Your task to perform on an android device: View the shopping cart on bestbuy. Search for "asus rog" on bestbuy, select the first entry, and add it to the cart. Image 0: 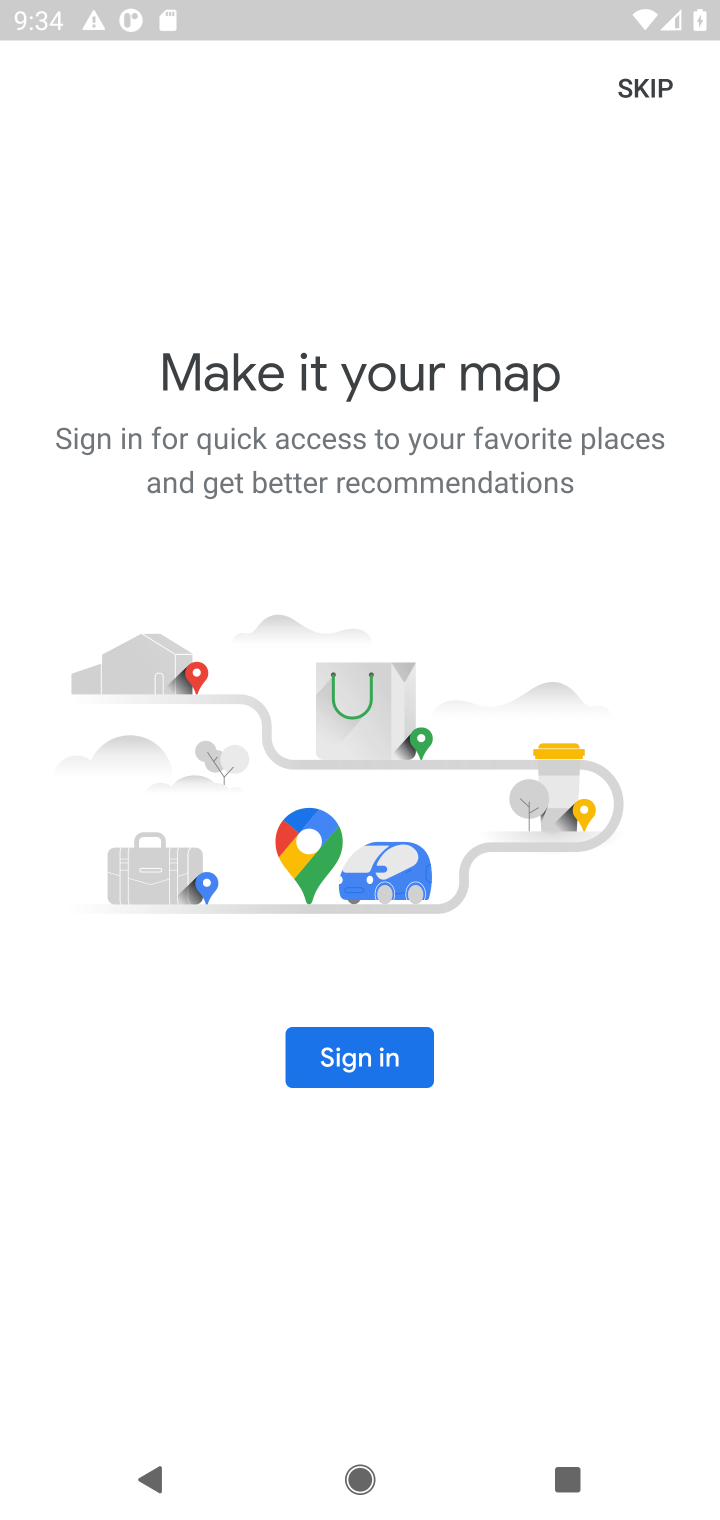
Step 0: press home button
Your task to perform on an android device: View the shopping cart on bestbuy. Search for "asus rog" on bestbuy, select the first entry, and add it to the cart. Image 1: 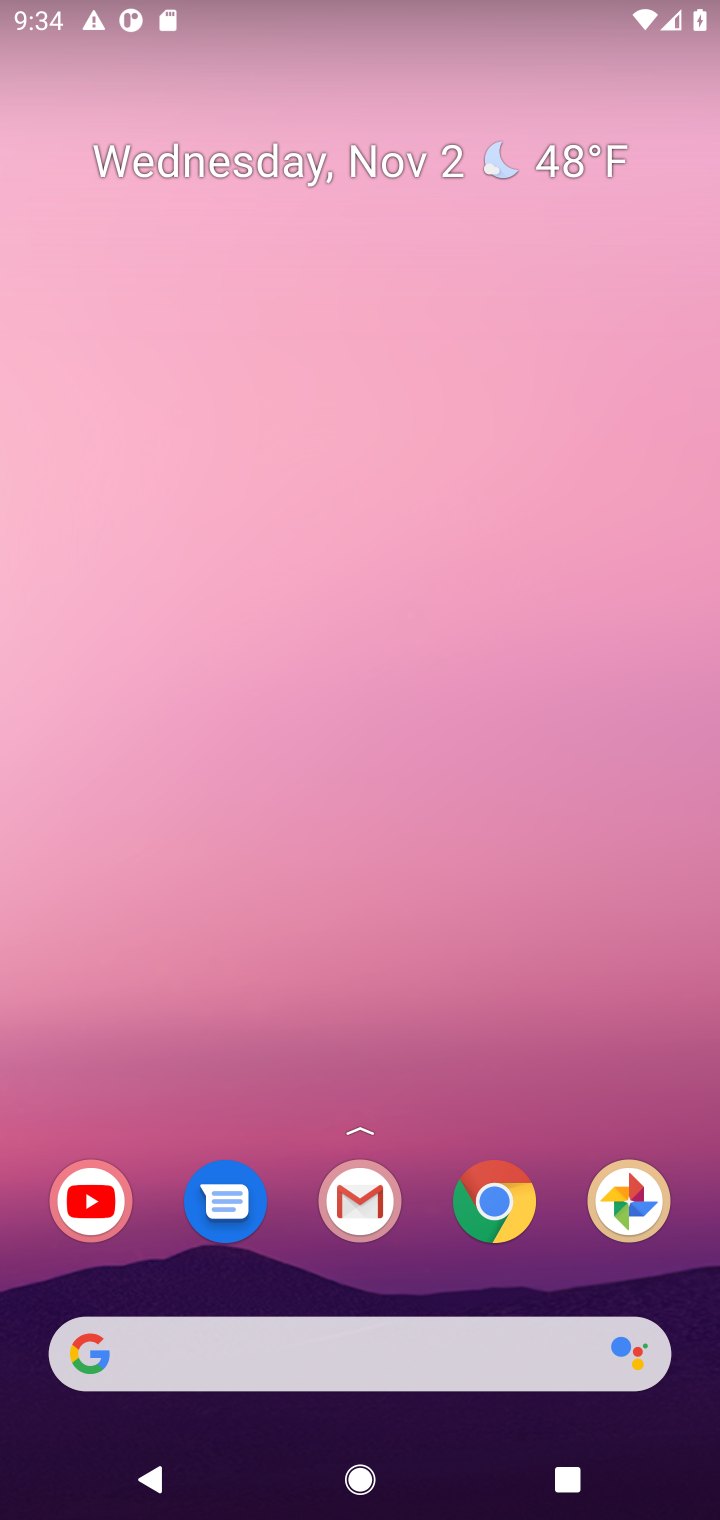
Step 1: drag from (416, 1279) to (359, 327)
Your task to perform on an android device: View the shopping cart on bestbuy. Search for "asus rog" on bestbuy, select the first entry, and add it to the cart. Image 2: 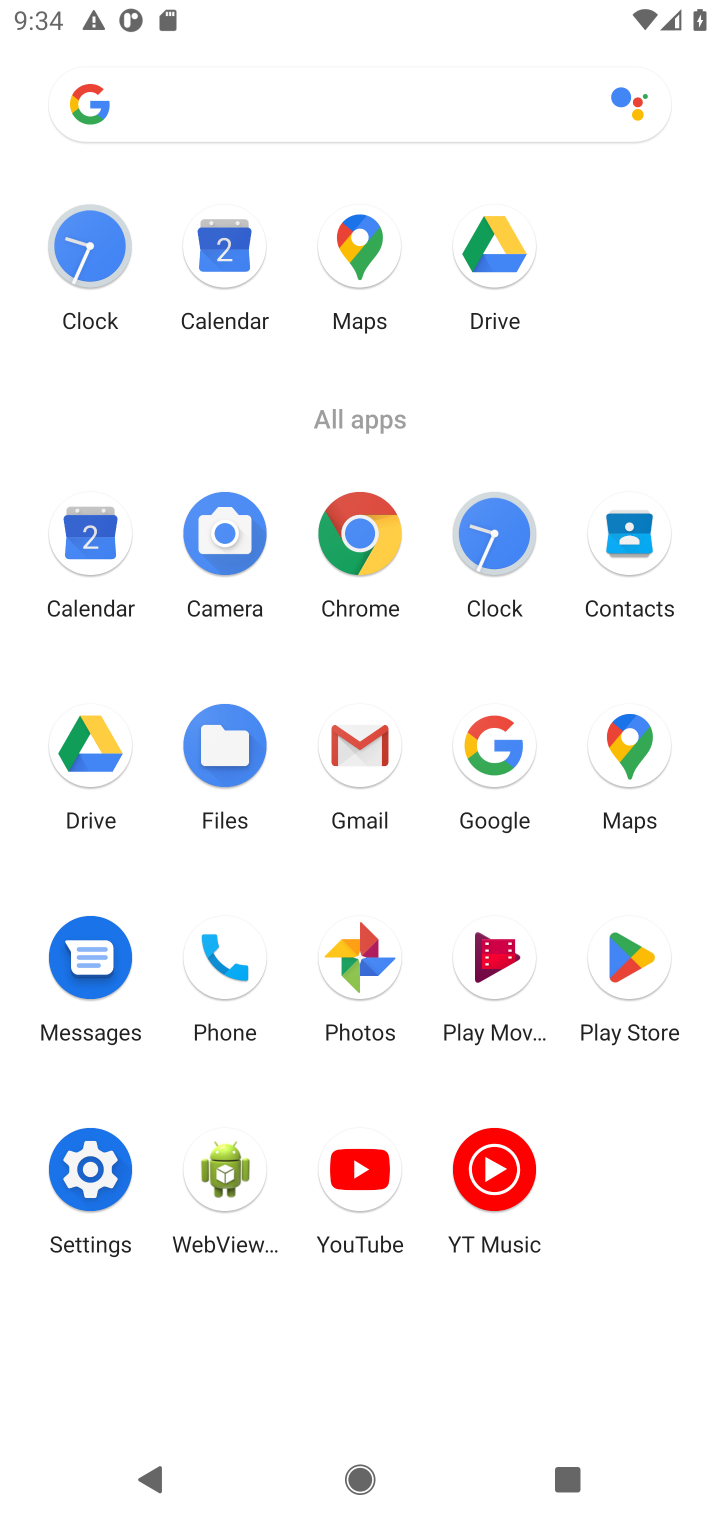
Step 2: click (363, 532)
Your task to perform on an android device: View the shopping cart on bestbuy. Search for "asus rog" on bestbuy, select the first entry, and add it to the cart. Image 3: 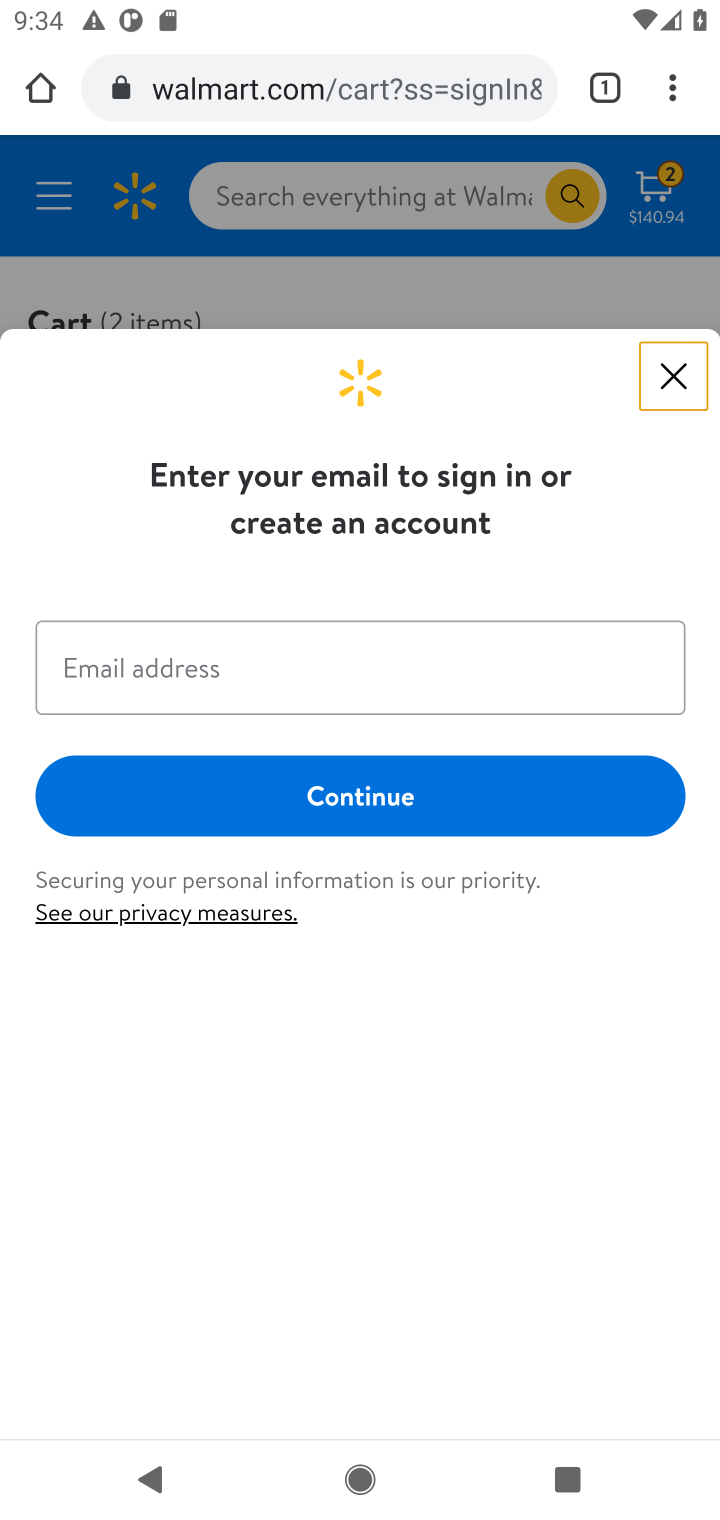
Step 3: click (394, 106)
Your task to perform on an android device: View the shopping cart on bestbuy. Search for "asus rog" on bestbuy, select the first entry, and add it to the cart. Image 4: 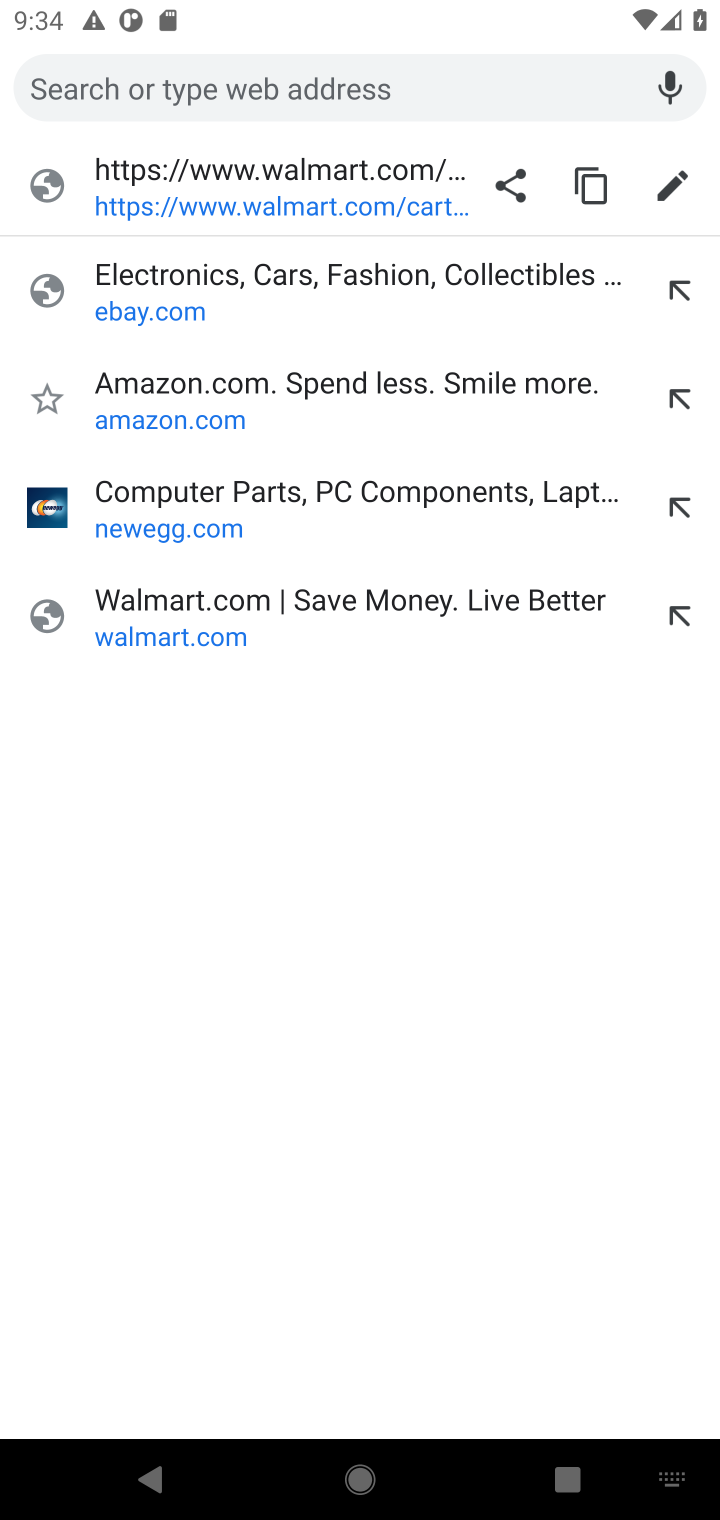
Step 4: type "bestbuy.com"
Your task to perform on an android device: View the shopping cart on bestbuy. Search for "asus rog" on bestbuy, select the first entry, and add it to the cart. Image 5: 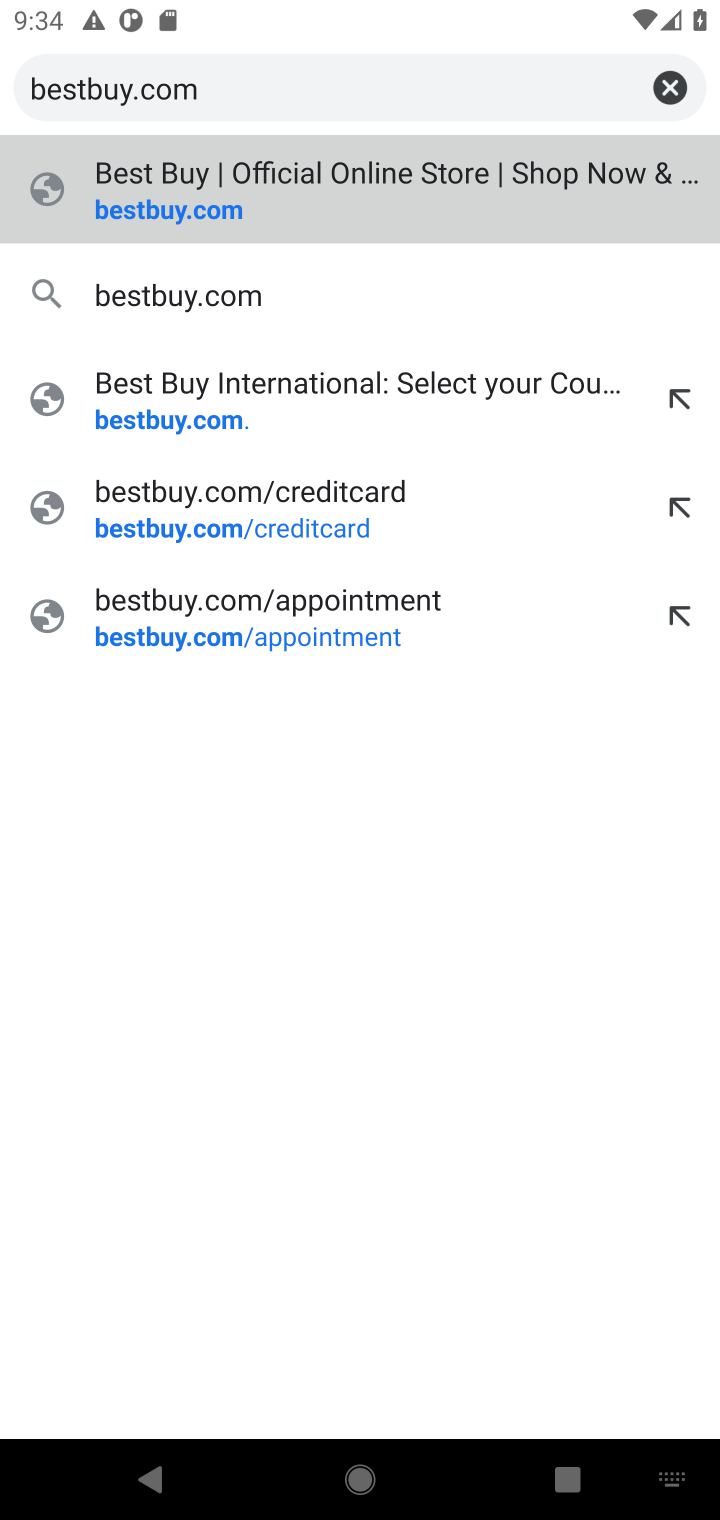
Step 5: press enter
Your task to perform on an android device: View the shopping cart on bestbuy. Search for "asus rog" on bestbuy, select the first entry, and add it to the cart. Image 6: 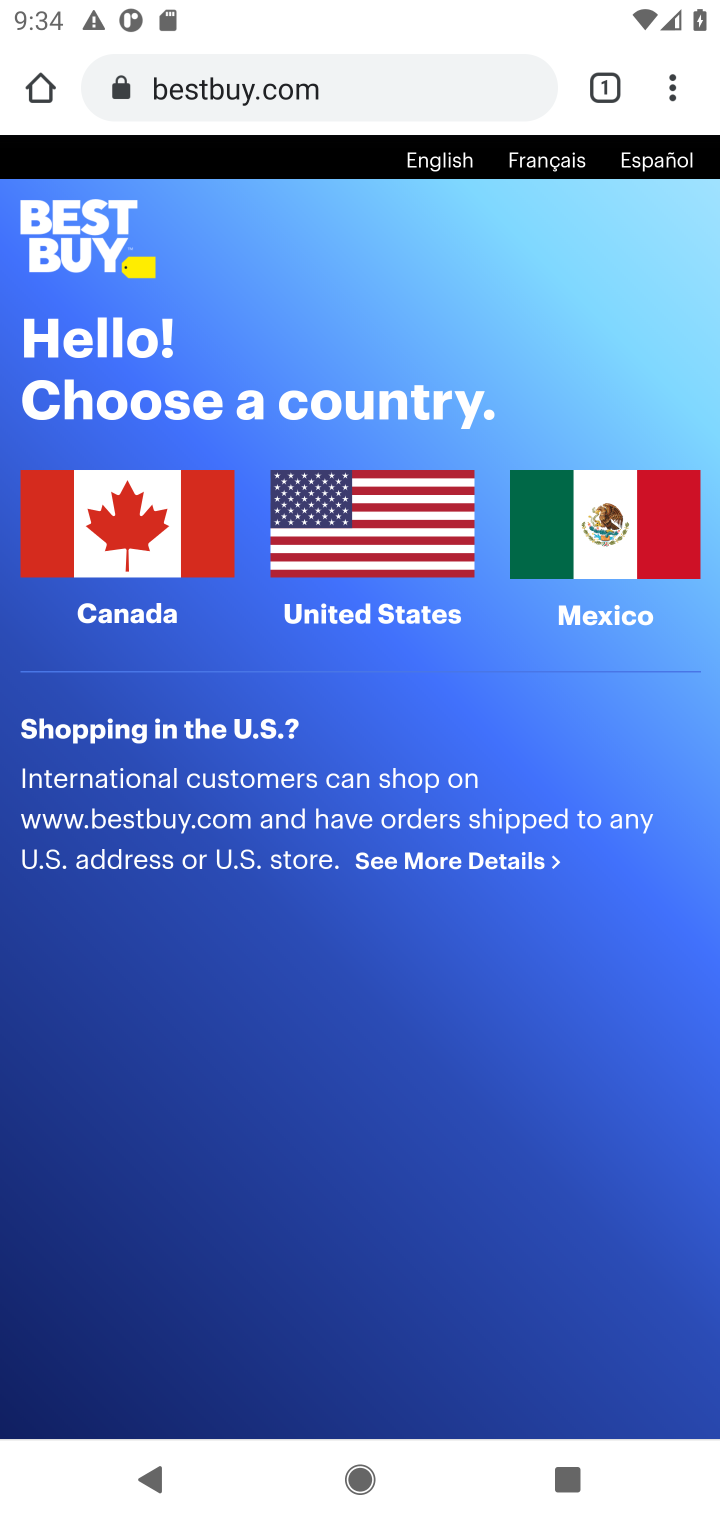
Step 6: click (118, 547)
Your task to perform on an android device: View the shopping cart on bestbuy. Search for "asus rog" on bestbuy, select the first entry, and add it to the cart. Image 7: 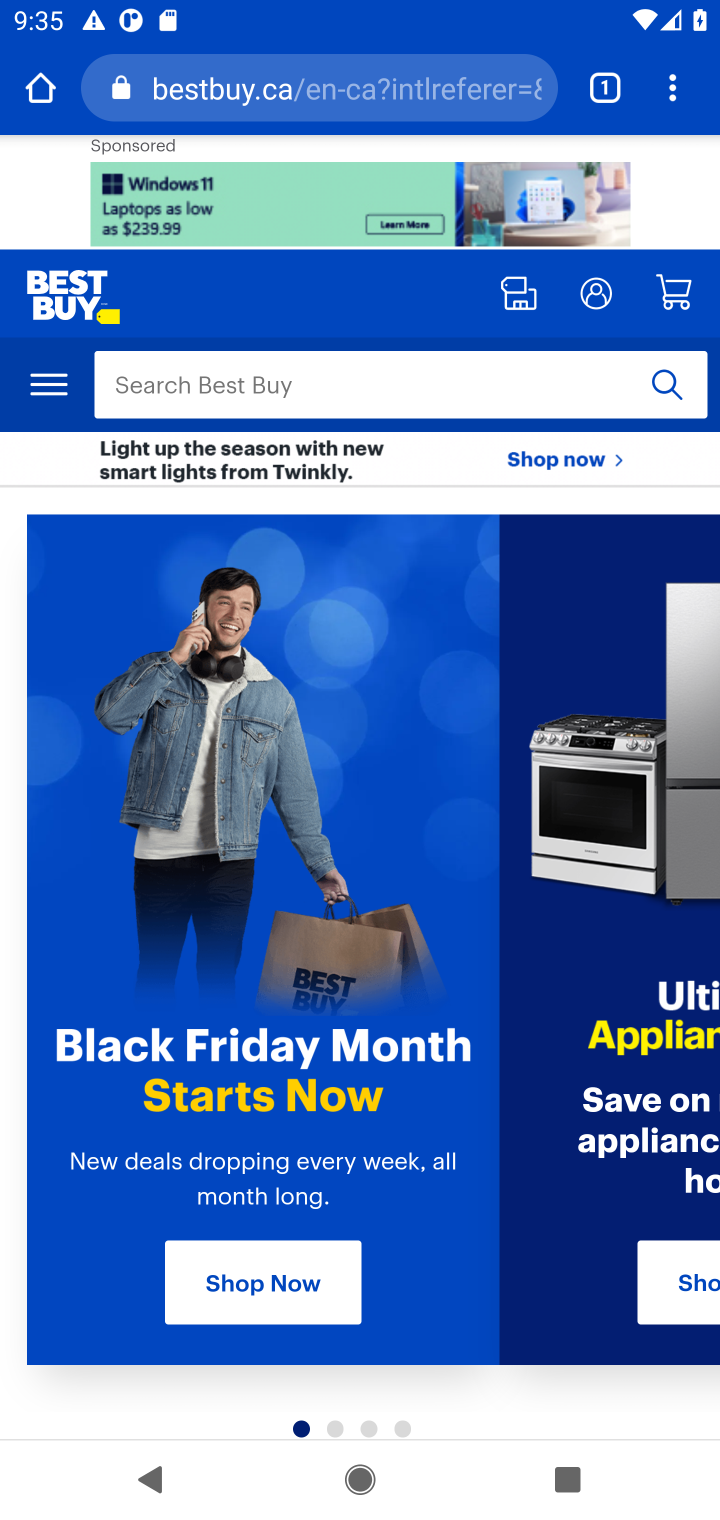
Step 7: click (674, 277)
Your task to perform on an android device: View the shopping cart on bestbuy. Search for "asus rog" on bestbuy, select the first entry, and add it to the cart. Image 8: 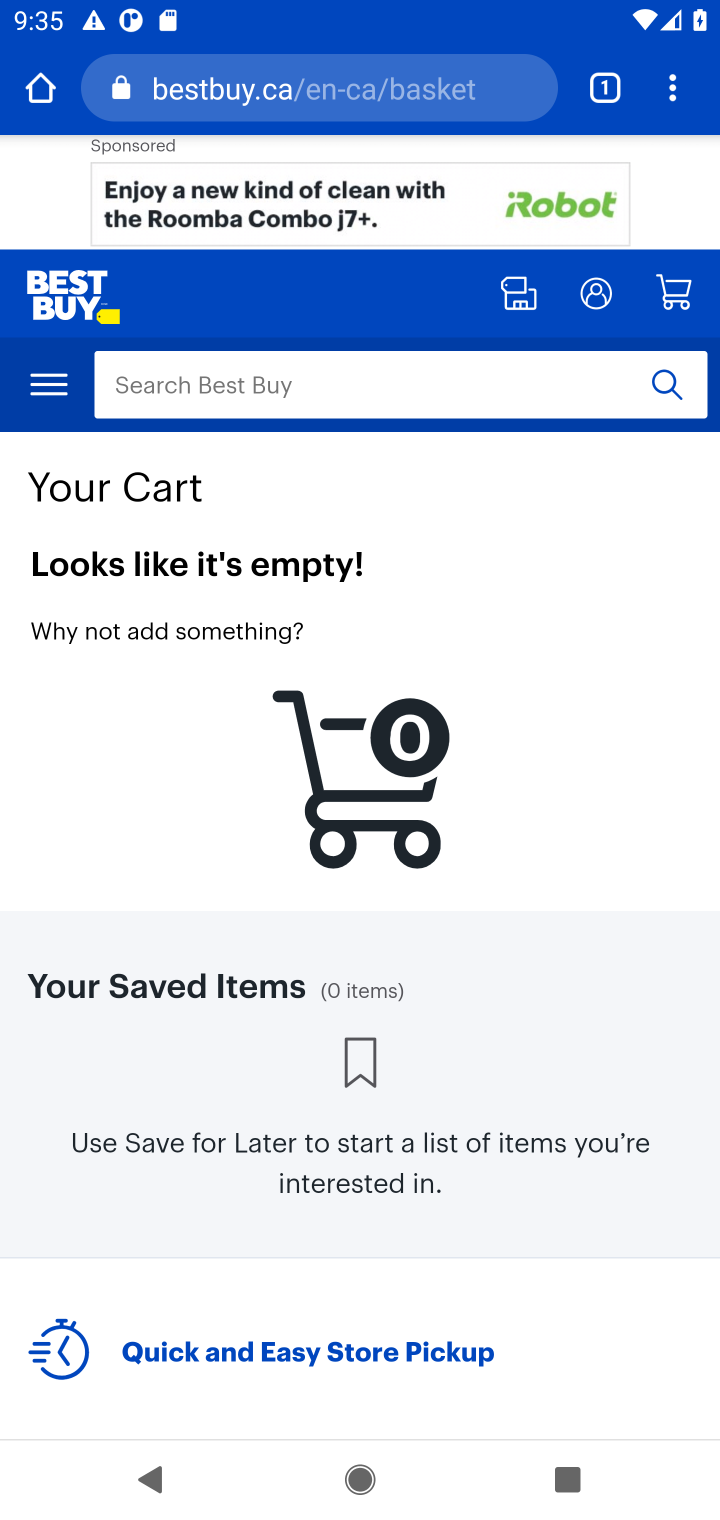
Step 8: click (413, 383)
Your task to perform on an android device: View the shopping cart on bestbuy. Search for "asus rog" on bestbuy, select the first entry, and add it to the cart. Image 9: 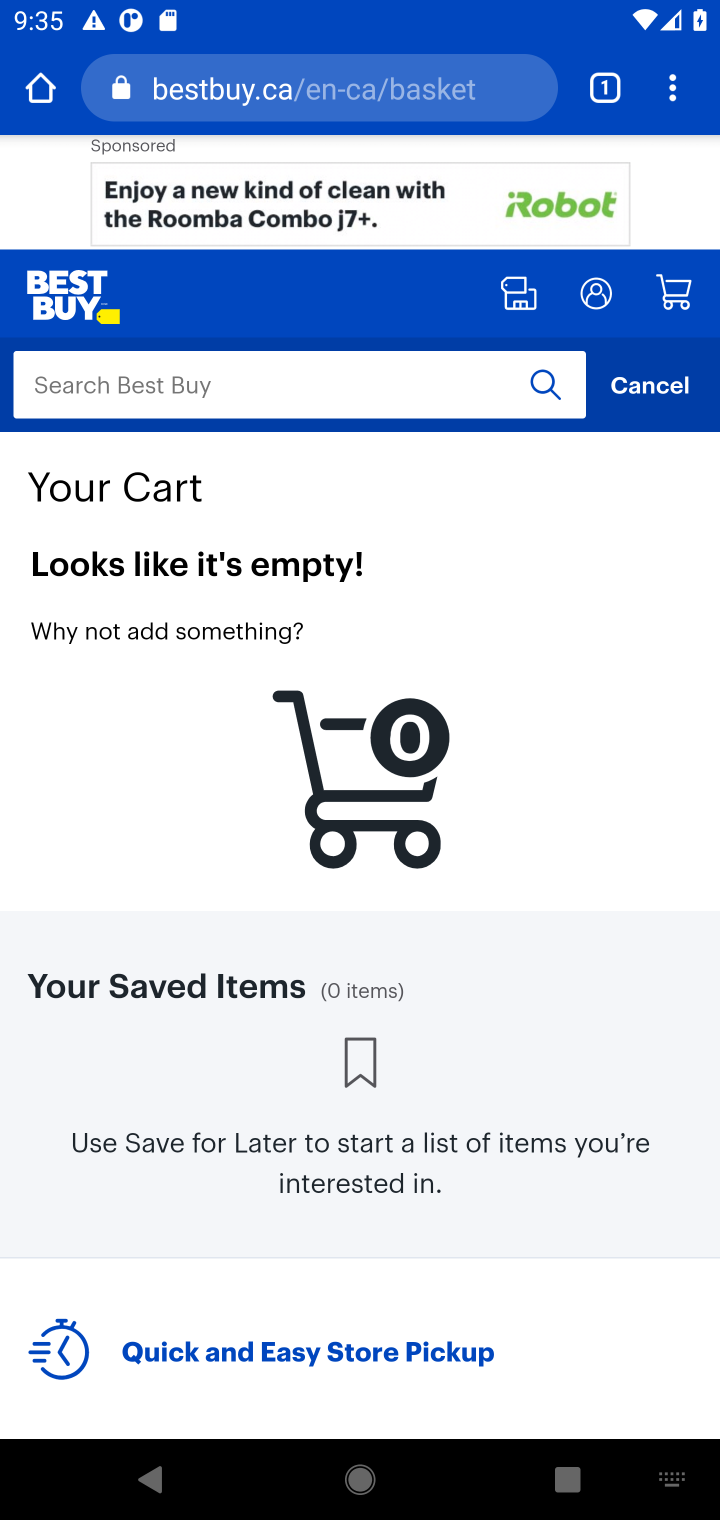
Step 9: type "asus rog"
Your task to perform on an android device: View the shopping cart on bestbuy. Search for "asus rog" on bestbuy, select the first entry, and add it to the cart. Image 10: 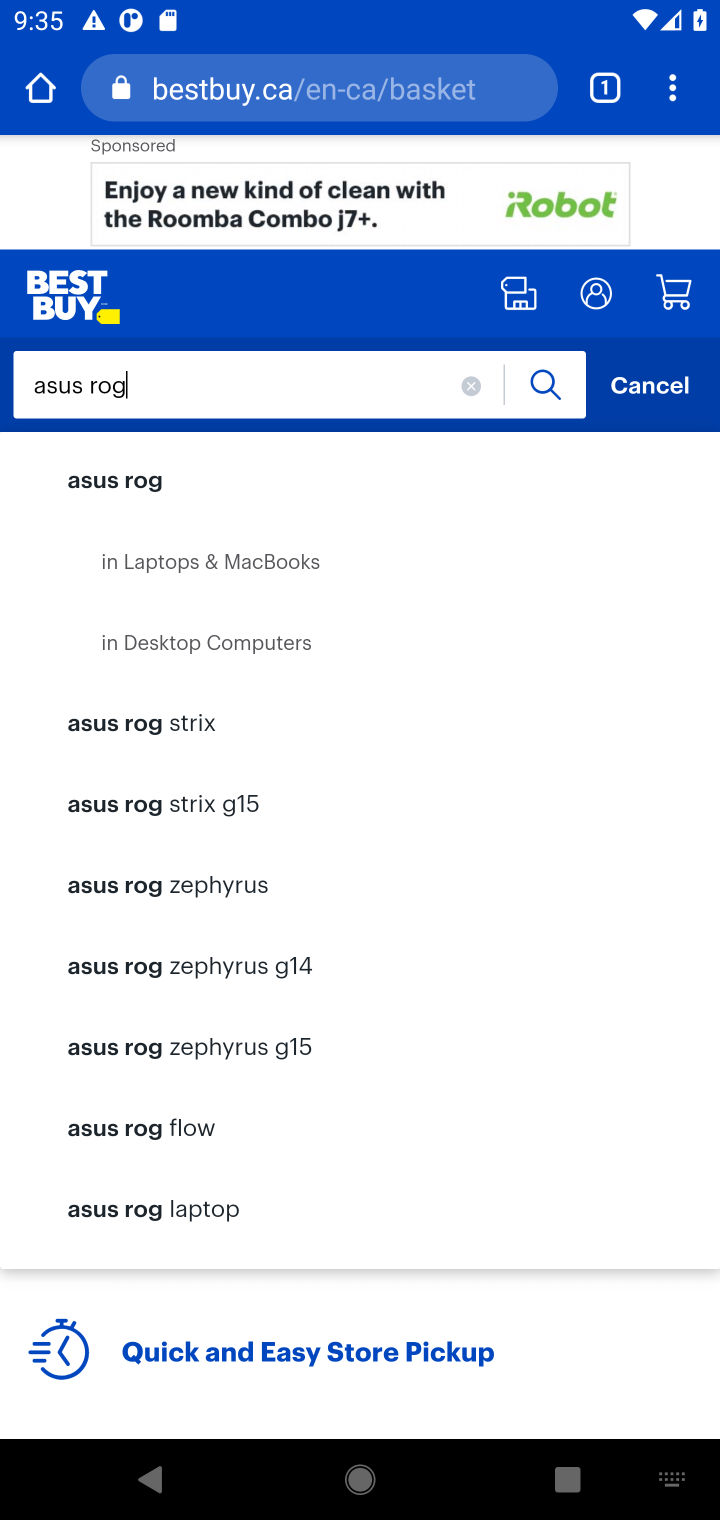
Step 10: press enter
Your task to perform on an android device: View the shopping cart on bestbuy. Search for "asus rog" on bestbuy, select the first entry, and add it to the cart. Image 11: 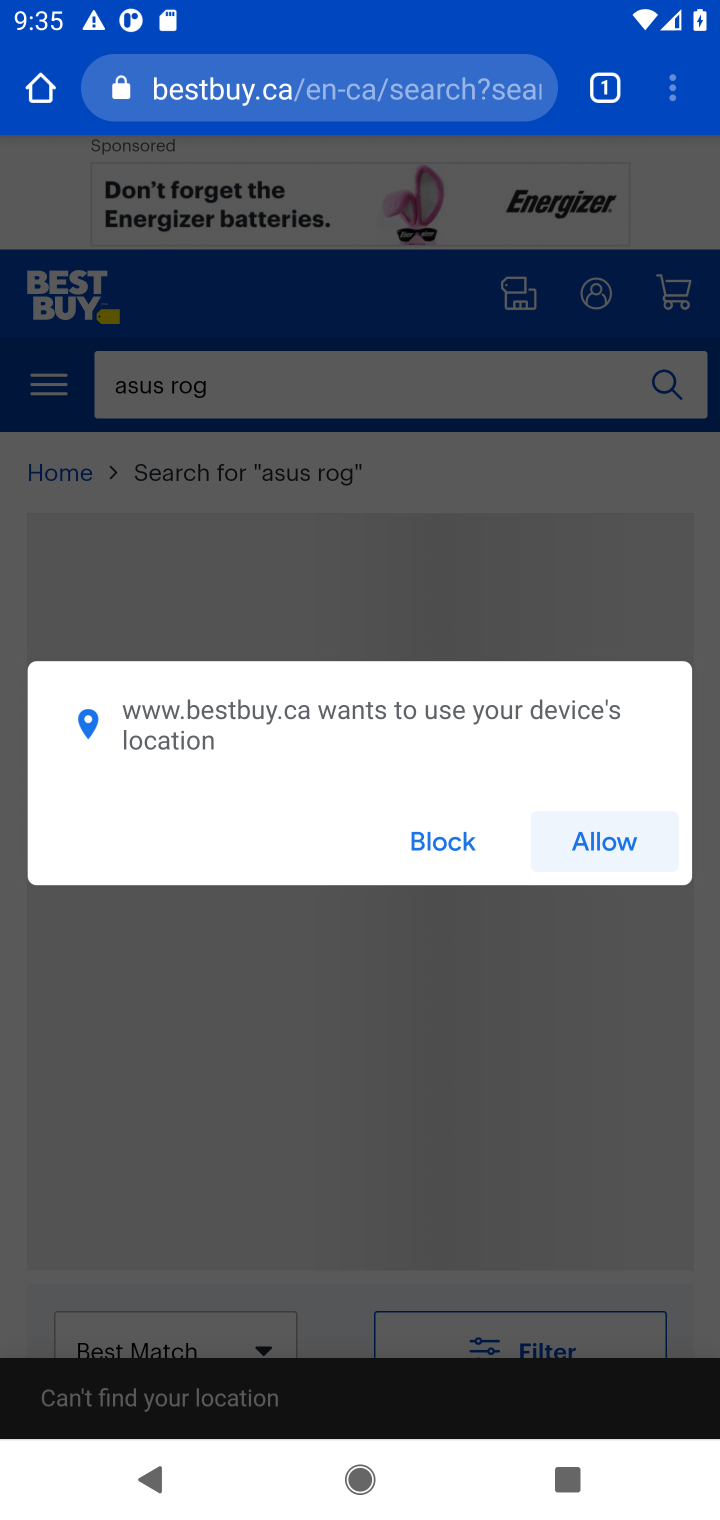
Step 11: click (443, 839)
Your task to perform on an android device: View the shopping cart on bestbuy. Search for "asus rog" on bestbuy, select the first entry, and add it to the cart. Image 12: 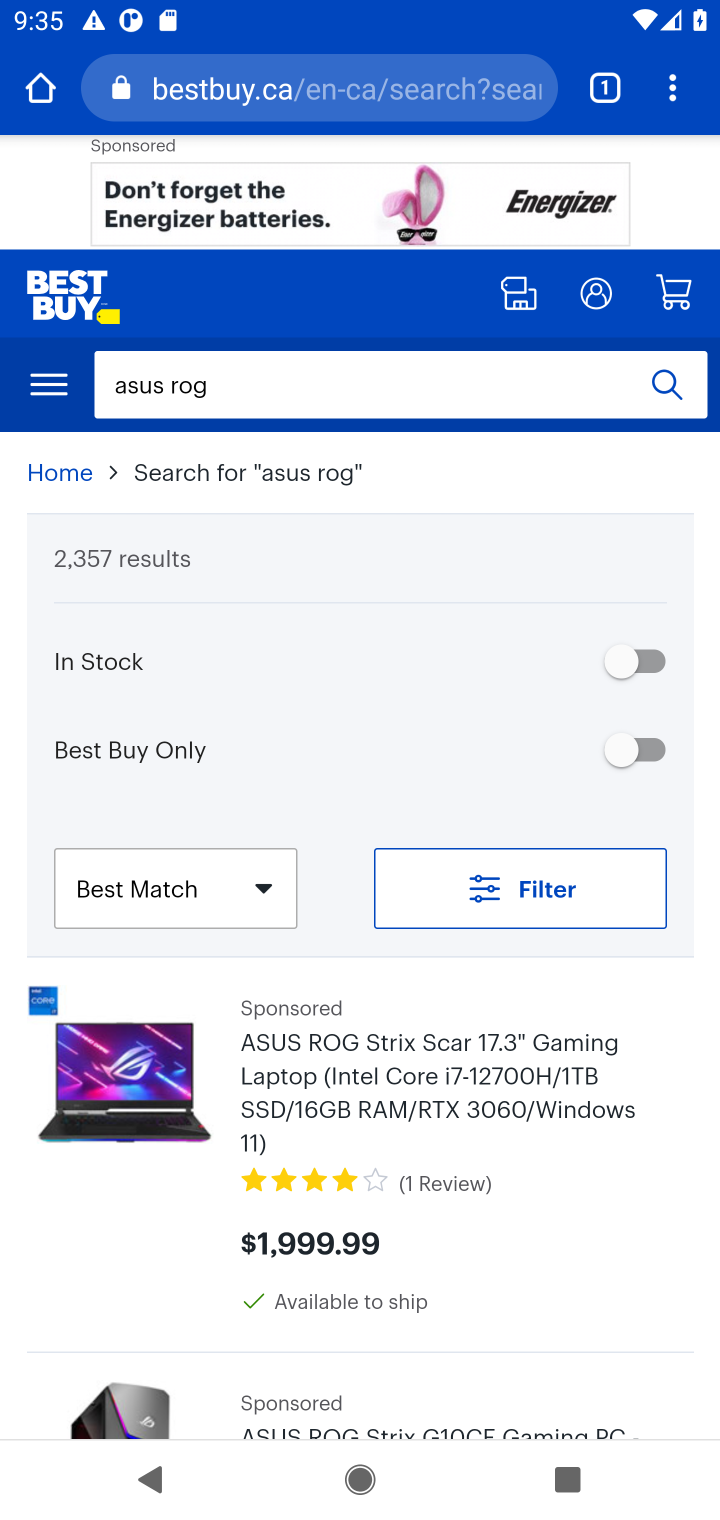
Step 12: drag from (478, 1312) to (472, 313)
Your task to perform on an android device: View the shopping cart on bestbuy. Search for "asus rog" on bestbuy, select the first entry, and add it to the cart. Image 13: 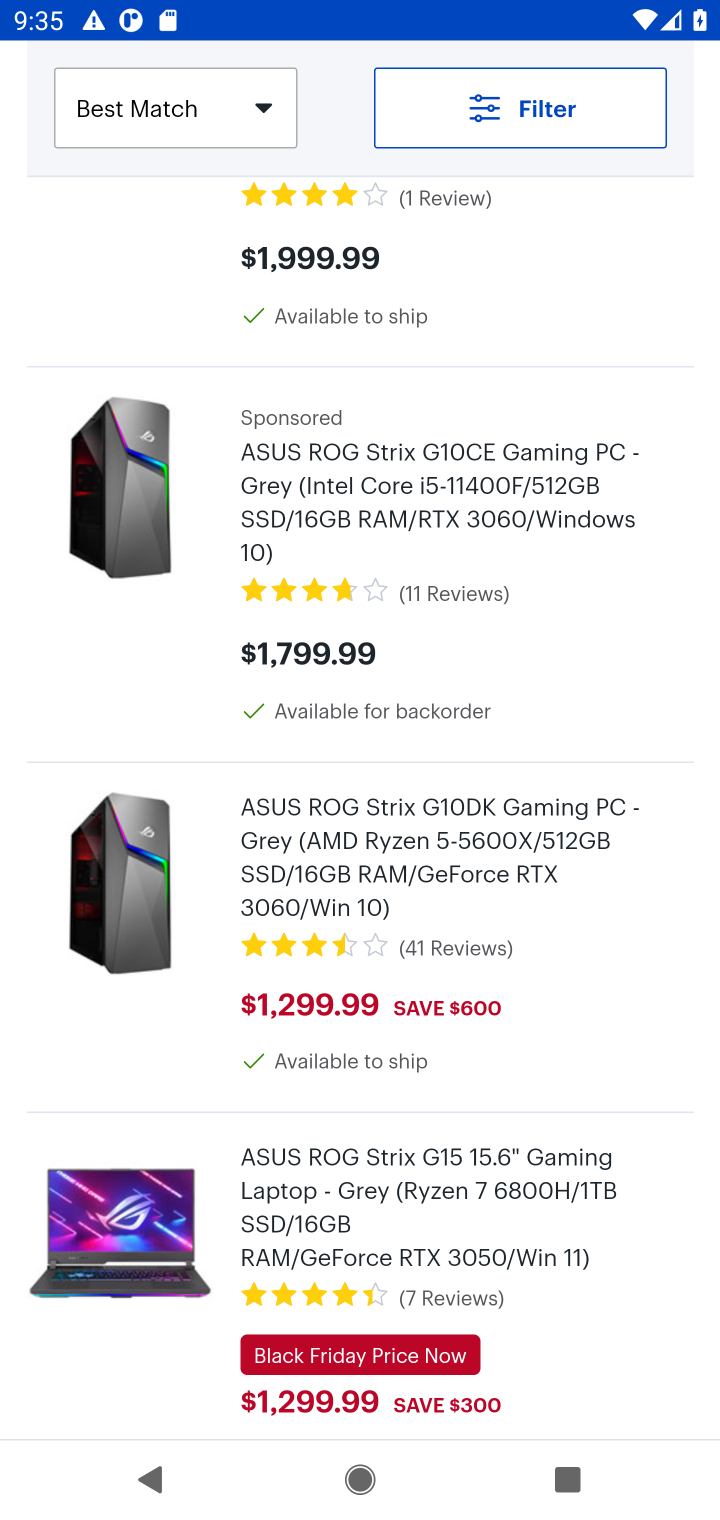
Step 13: click (332, 830)
Your task to perform on an android device: View the shopping cart on bestbuy. Search for "asus rog" on bestbuy, select the first entry, and add it to the cart. Image 14: 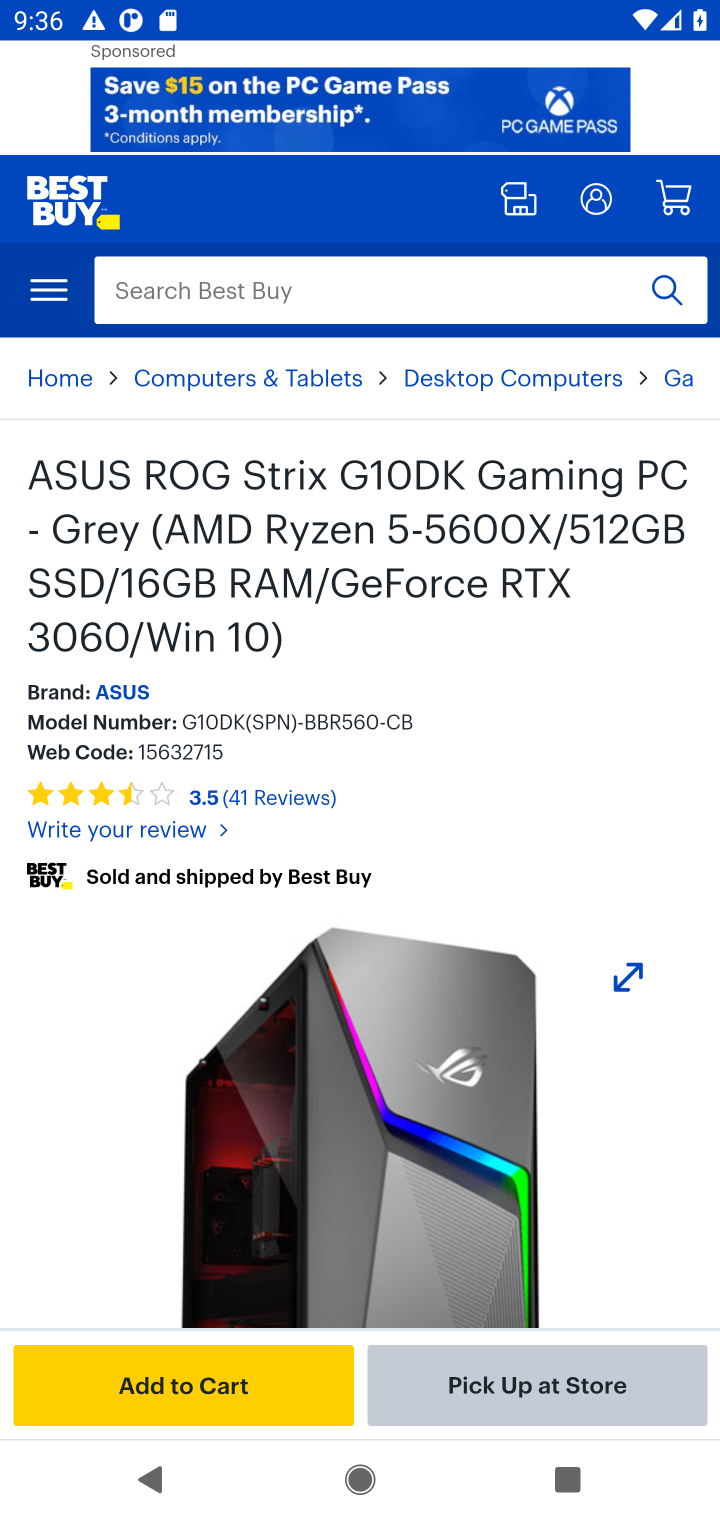
Step 14: drag from (245, 819) to (255, 557)
Your task to perform on an android device: View the shopping cart on bestbuy. Search for "asus rog" on bestbuy, select the first entry, and add it to the cart. Image 15: 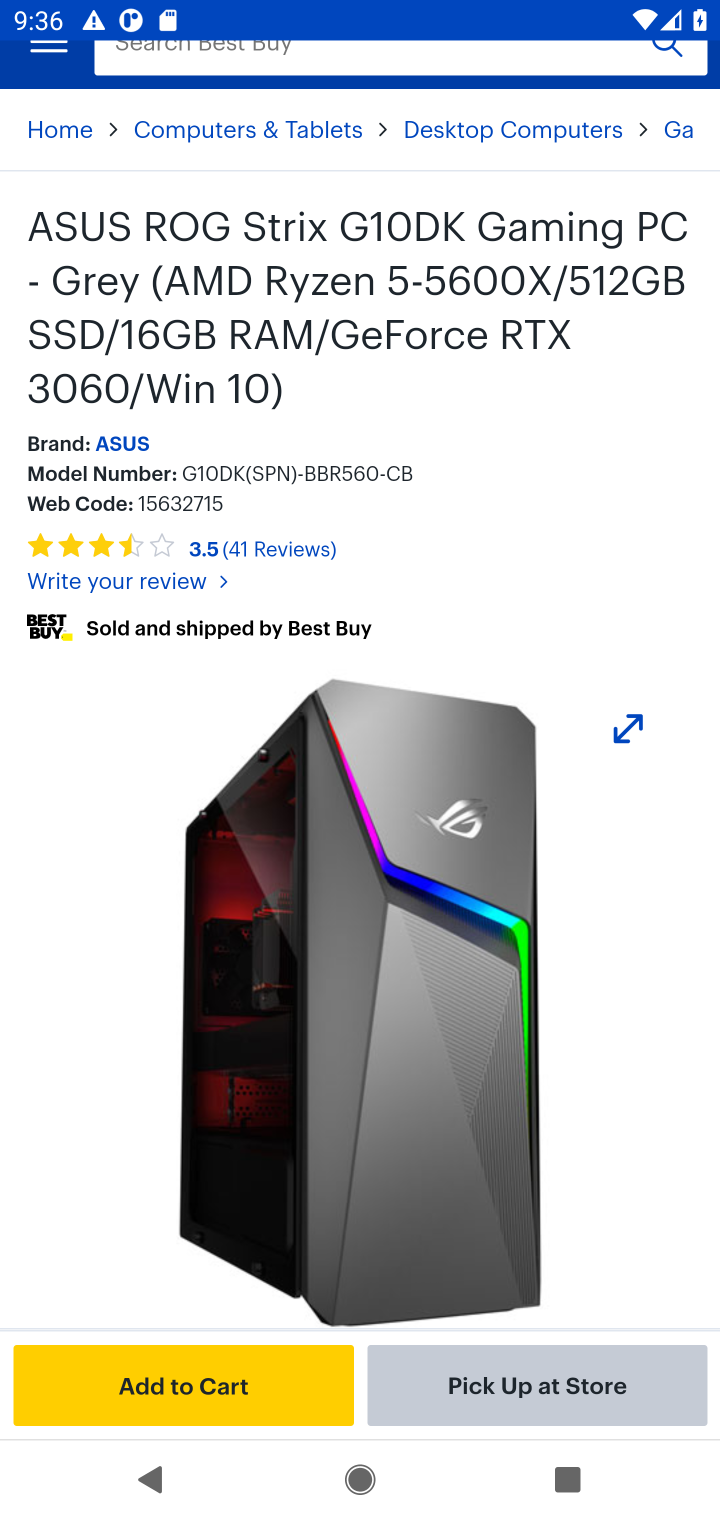
Step 15: click (194, 1391)
Your task to perform on an android device: View the shopping cart on bestbuy. Search for "asus rog" on bestbuy, select the first entry, and add it to the cart. Image 16: 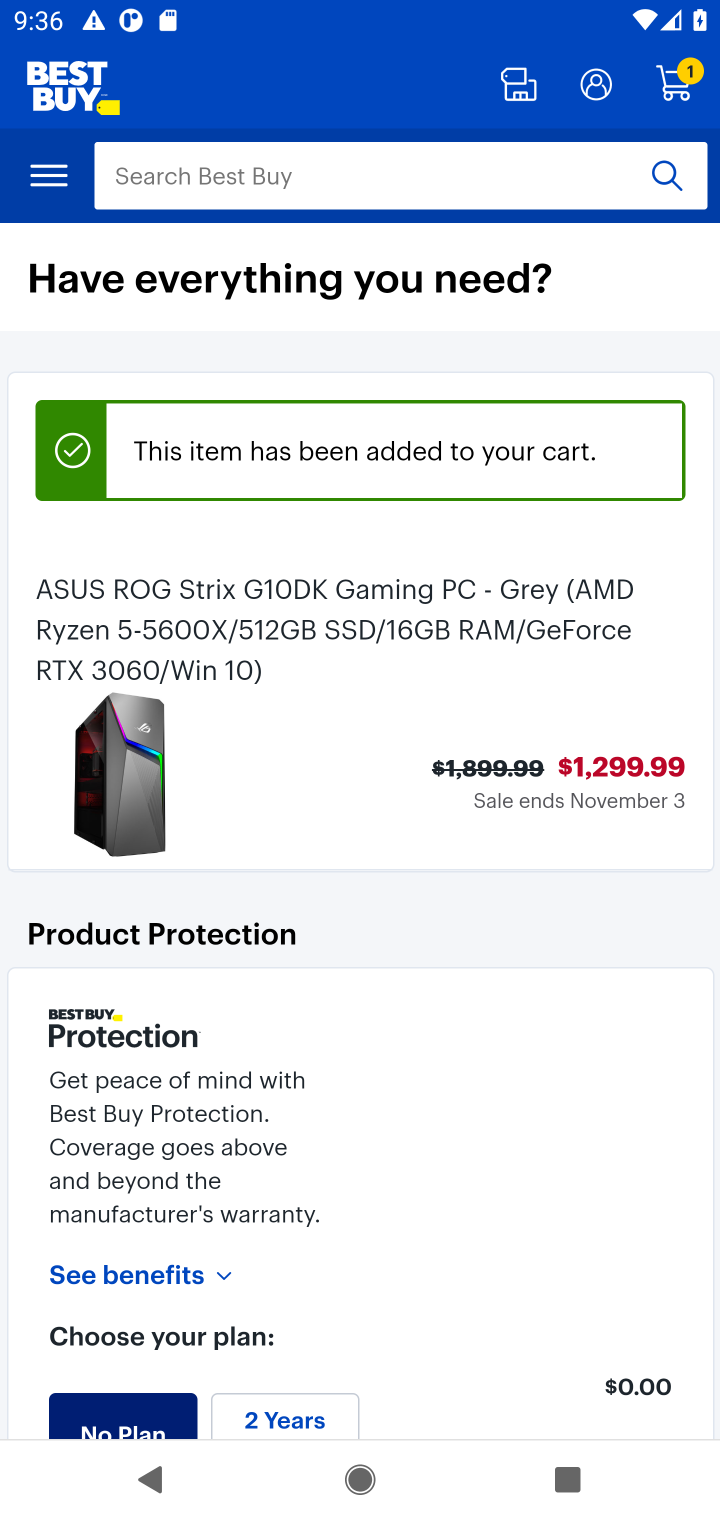
Step 16: task complete